Your task to perform on an android device: Go to notification settings Image 0: 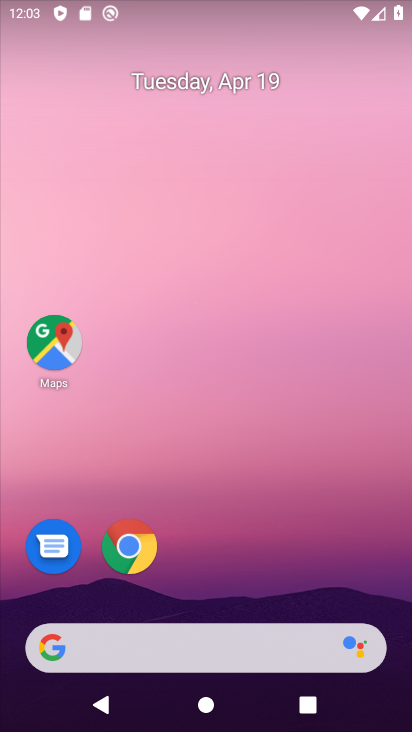
Step 0: drag from (202, 588) to (222, 31)
Your task to perform on an android device: Go to notification settings Image 1: 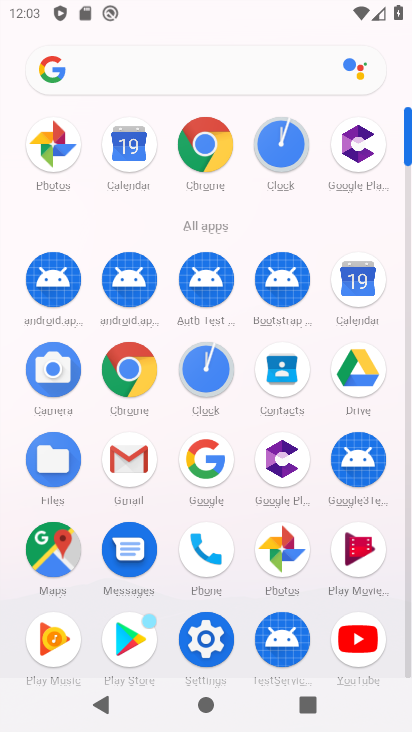
Step 1: click (207, 635)
Your task to perform on an android device: Go to notification settings Image 2: 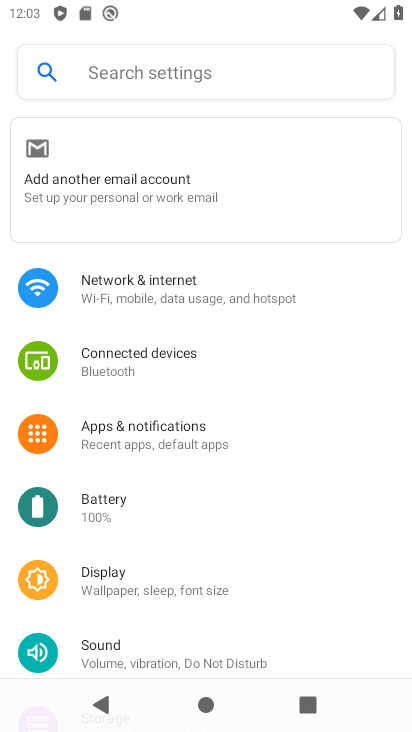
Step 2: click (219, 422)
Your task to perform on an android device: Go to notification settings Image 3: 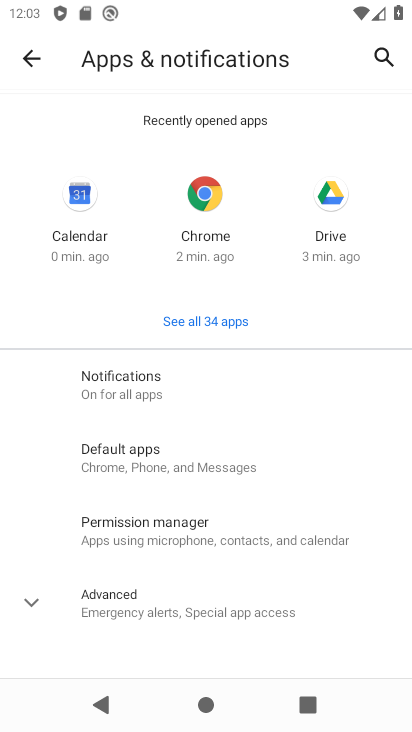
Step 3: click (175, 377)
Your task to perform on an android device: Go to notification settings Image 4: 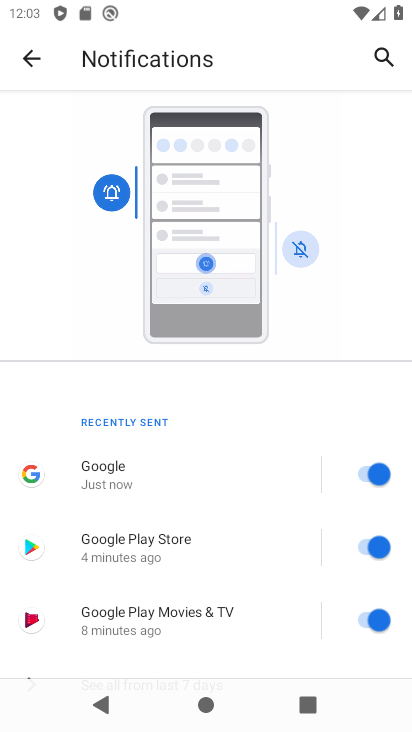
Step 4: drag from (246, 623) to (266, 164)
Your task to perform on an android device: Go to notification settings Image 5: 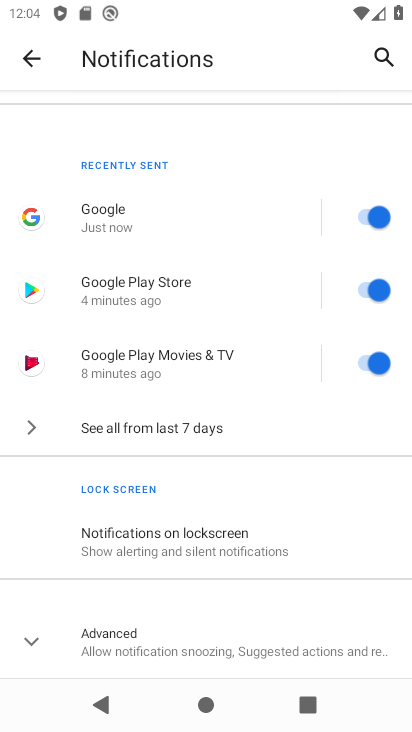
Step 5: click (366, 201)
Your task to perform on an android device: Go to notification settings Image 6: 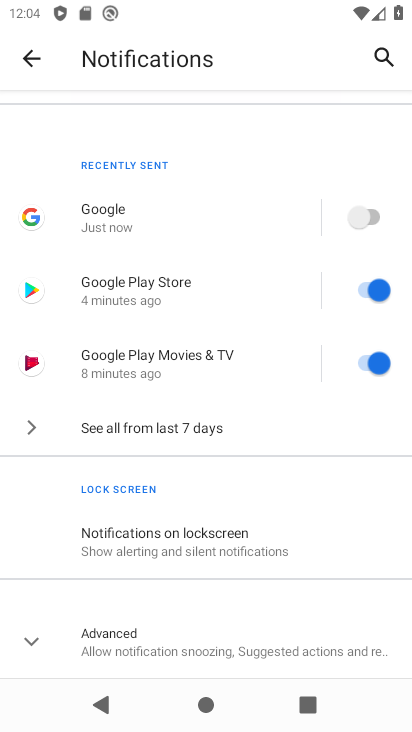
Step 6: drag from (369, 286) to (370, 362)
Your task to perform on an android device: Go to notification settings Image 7: 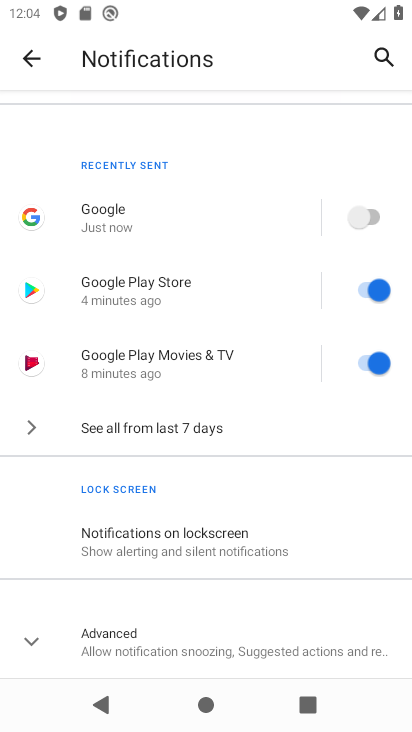
Step 7: click (200, 540)
Your task to perform on an android device: Go to notification settings Image 8: 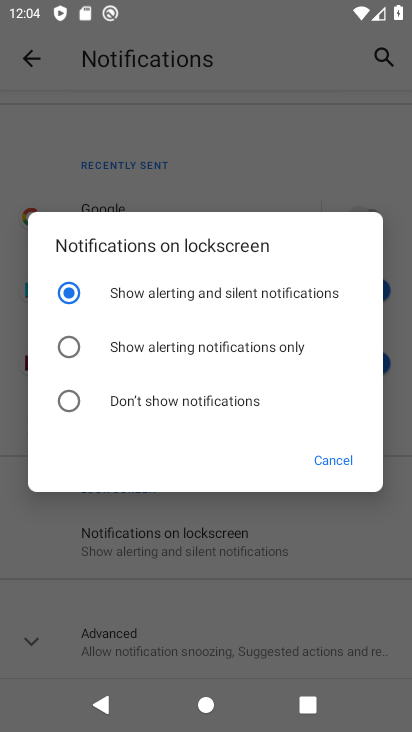
Step 8: click (65, 343)
Your task to perform on an android device: Go to notification settings Image 9: 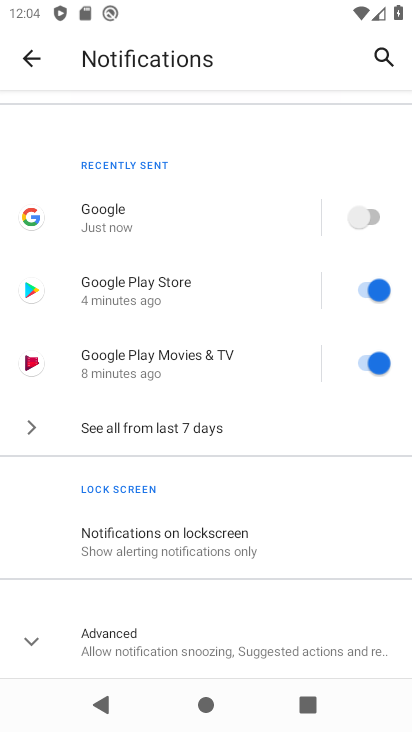
Step 9: click (365, 363)
Your task to perform on an android device: Go to notification settings Image 10: 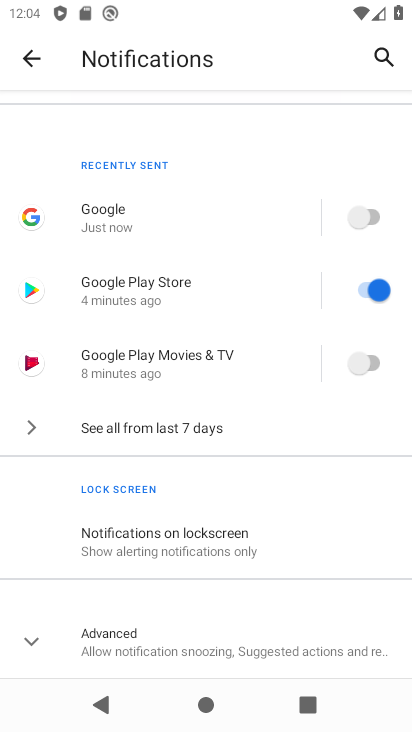
Step 10: click (364, 284)
Your task to perform on an android device: Go to notification settings Image 11: 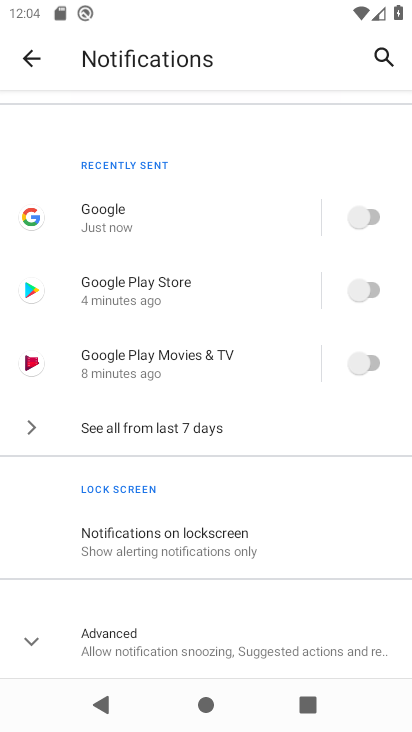
Step 11: drag from (169, 581) to (226, 165)
Your task to perform on an android device: Go to notification settings Image 12: 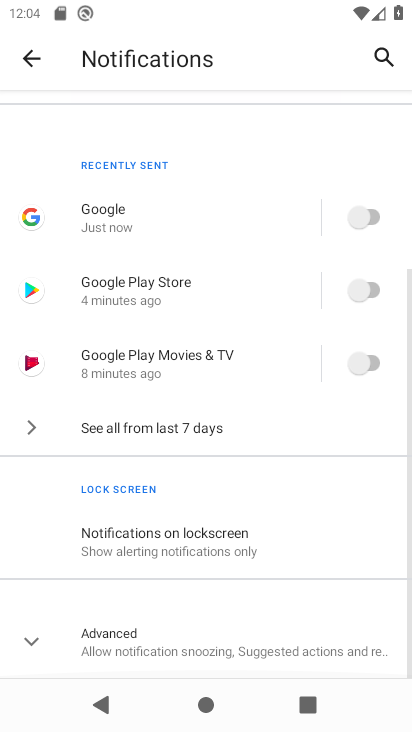
Step 12: click (59, 635)
Your task to perform on an android device: Go to notification settings Image 13: 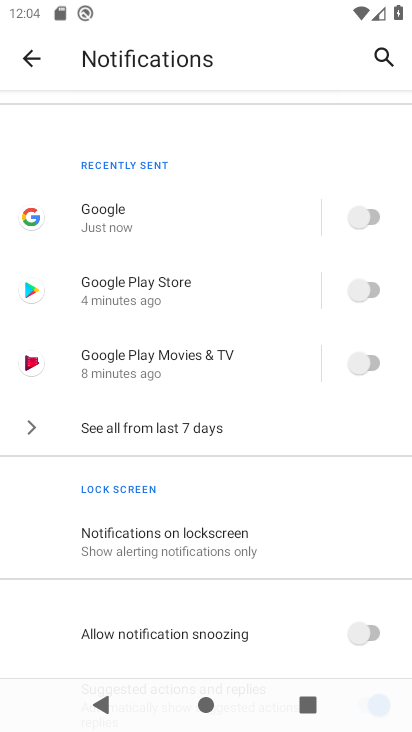
Step 13: click (358, 636)
Your task to perform on an android device: Go to notification settings Image 14: 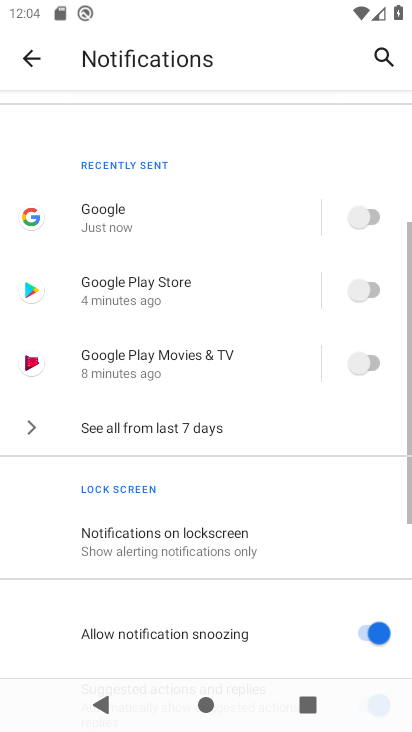
Step 14: task complete